Your task to perform on an android device: delete location history Image 0: 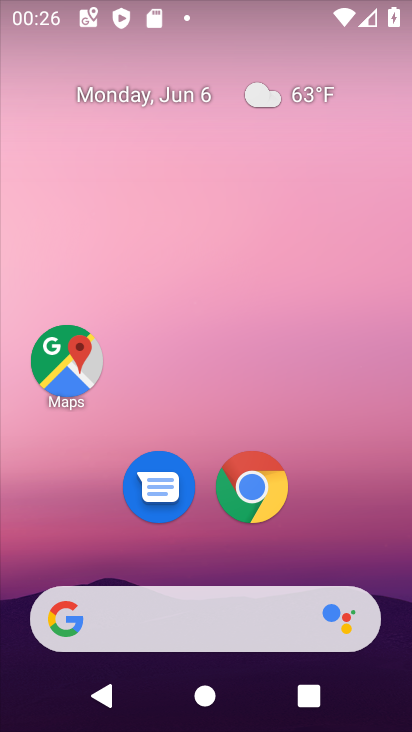
Step 0: click (69, 359)
Your task to perform on an android device: delete location history Image 1: 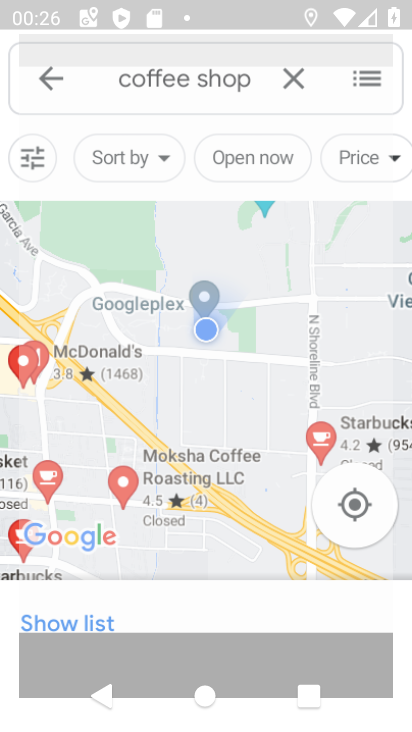
Step 1: click (282, 80)
Your task to perform on an android device: delete location history Image 2: 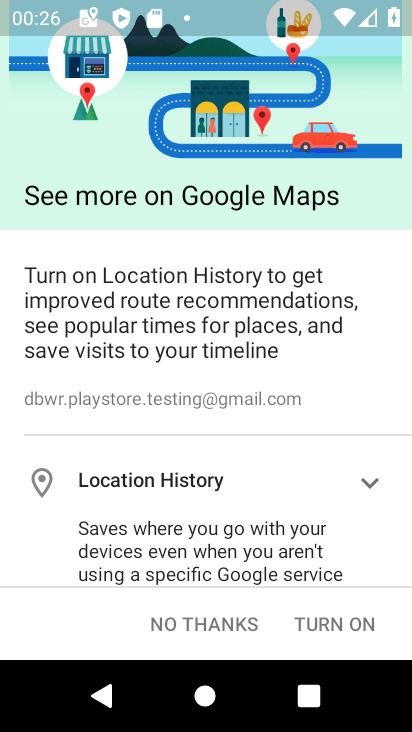
Step 2: click (227, 623)
Your task to perform on an android device: delete location history Image 3: 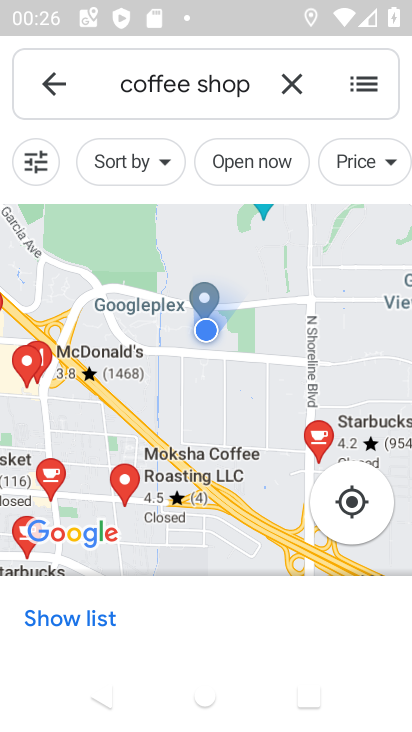
Step 3: click (288, 88)
Your task to perform on an android device: delete location history Image 4: 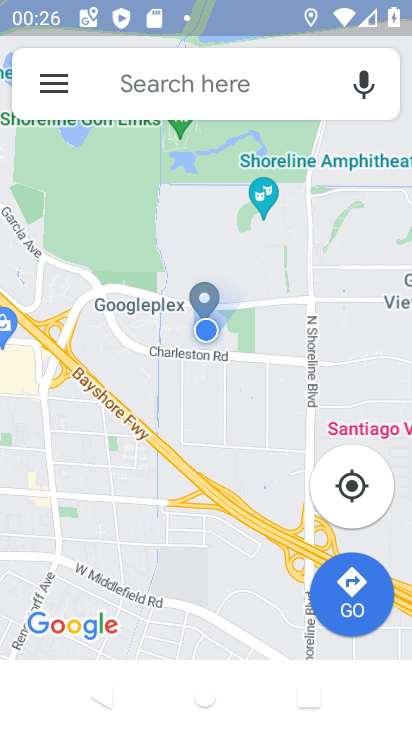
Step 4: click (51, 82)
Your task to perform on an android device: delete location history Image 5: 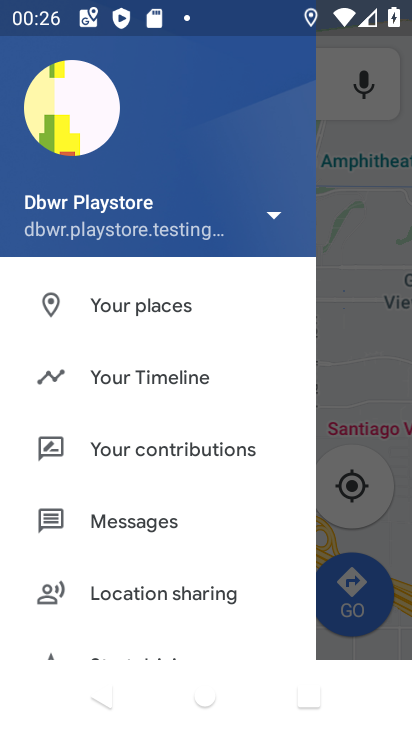
Step 5: drag from (228, 603) to (249, 227)
Your task to perform on an android device: delete location history Image 6: 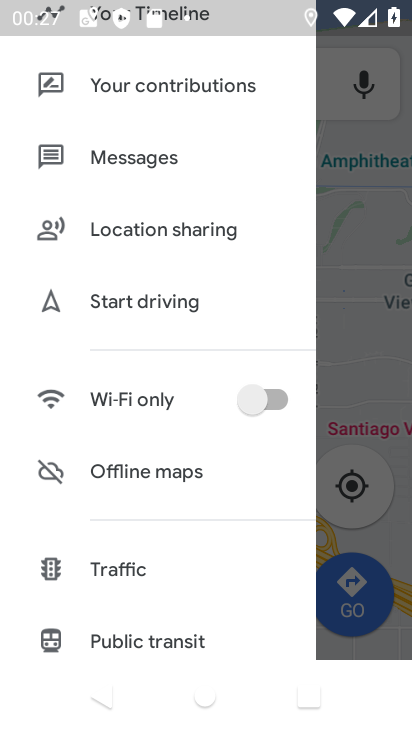
Step 6: drag from (234, 612) to (165, 128)
Your task to perform on an android device: delete location history Image 7: 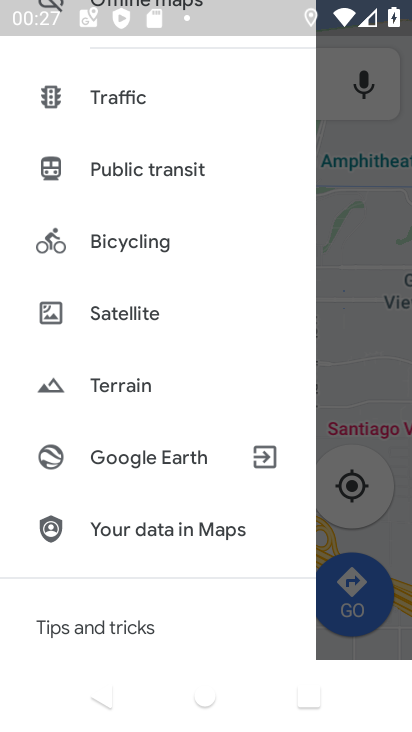
Step 7: drag from (234, 596) to (177, 75)
Your task to perform on an android device: delete location history Image 8: 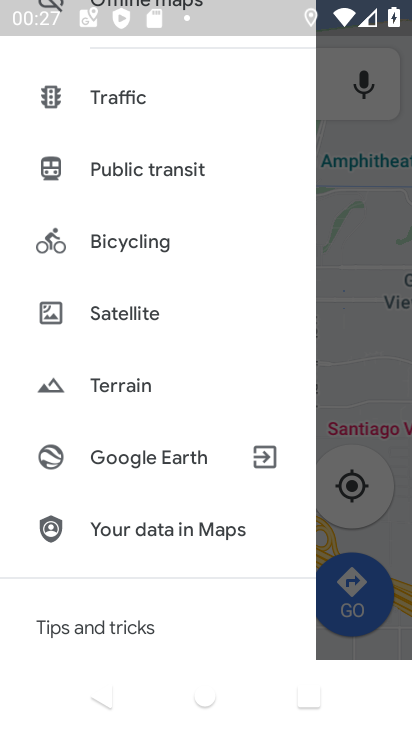
Step 8: drag from (204, 610) to (198, 93)
Your task to perform on an android device: delete location history Image 9: 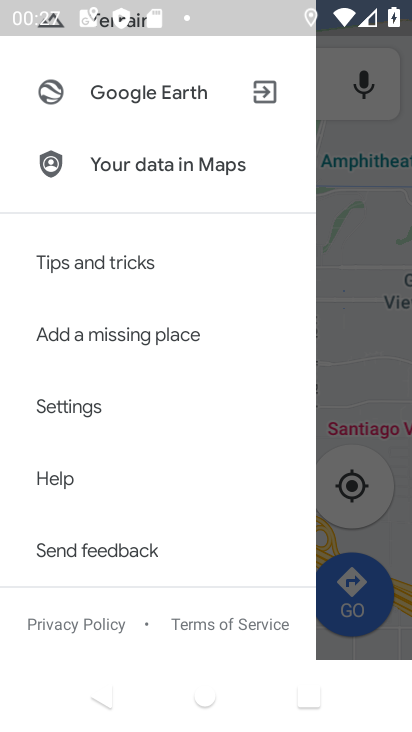
Step 9: click (84, 416)
Your task to perform on an android device: delete location history Image 10: 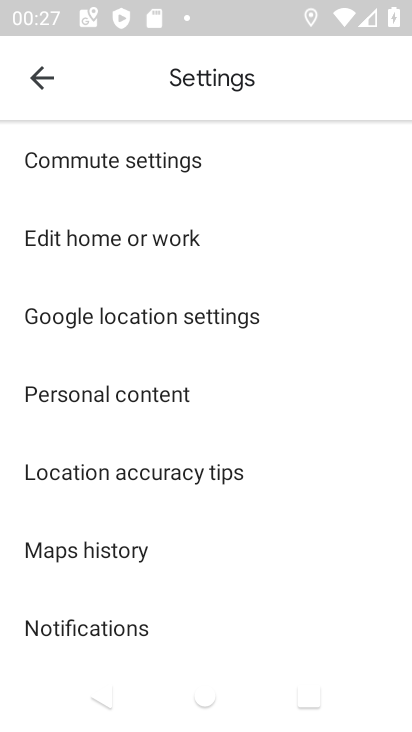
Step 10: click (95, 397)
Your task to perform on an android device: delete location history Image 11: 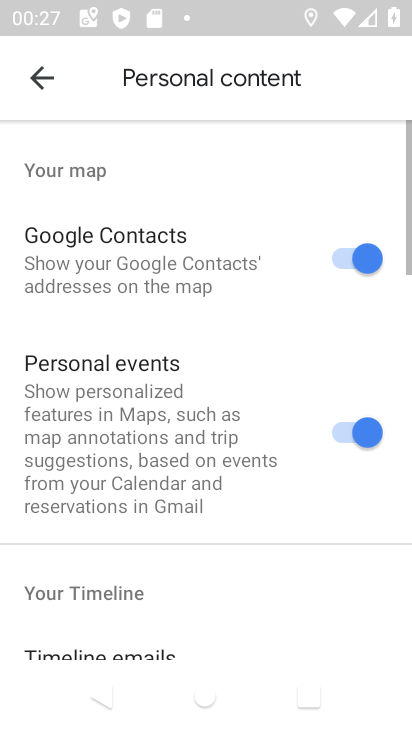
Step 11: drag from (278, 625) to (272, 177)
Your task to perform on an android device: delete location history Image 12: 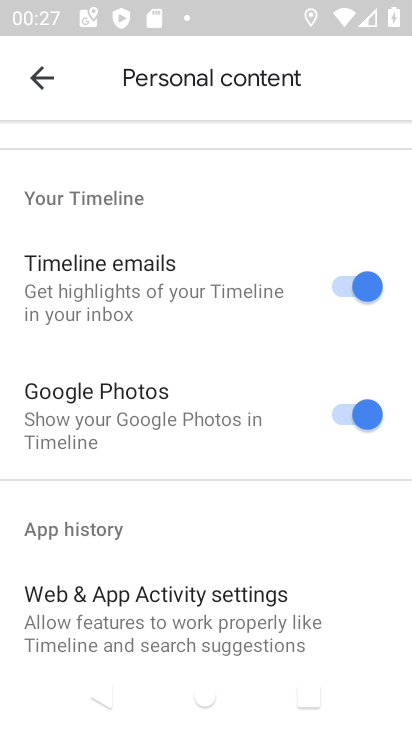
Step 12: drag from (306, 603) to (246, 130)
Your task to perform on an android device: delete location history Image 13: 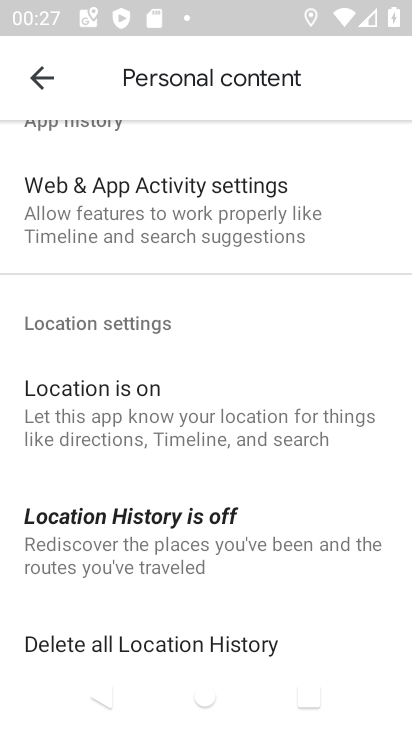
Step 13: drag from (282, 632) to (249, 173)
Your task to perform on an android device: delete location history Image 14: 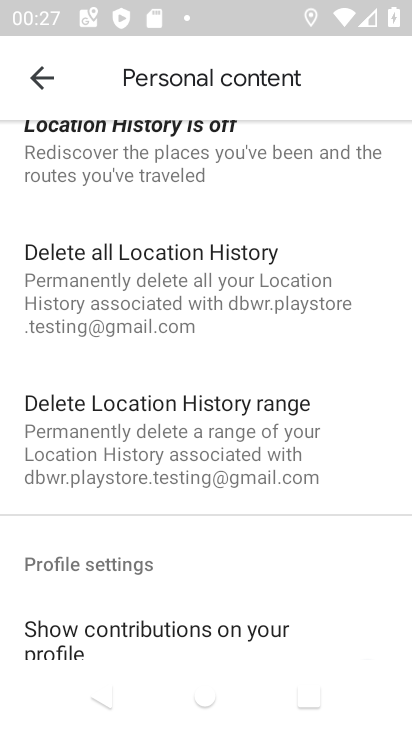
Step 14: click (123, 264)
Your task to perform on an android device: delete location history Image 15: 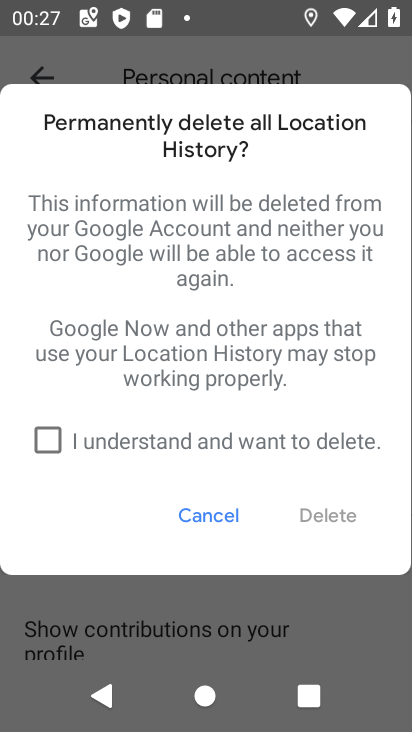
Step 15: click (57, 435)
Your task to perform on an android device: delete location history Image 16: 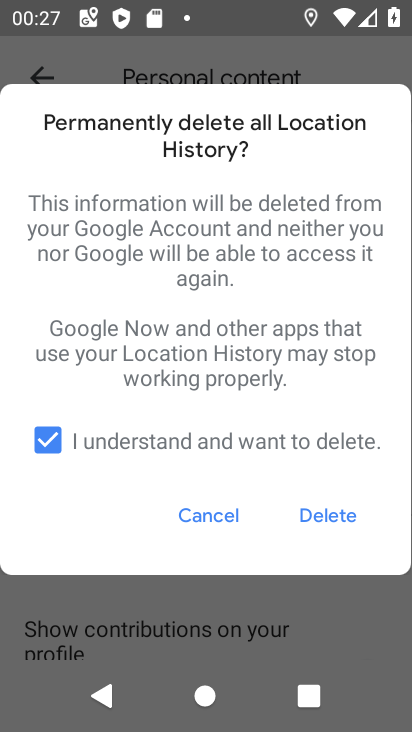
Step 16: click (326, 514)
Your task to perform on an android device: delete location history Image 17: 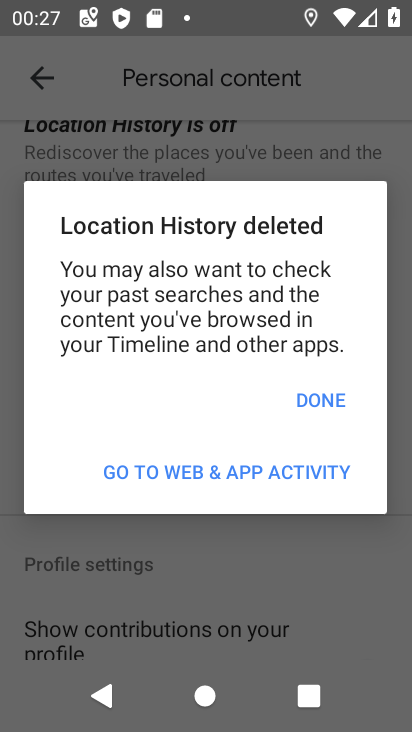
Step 17: click (322, 395)
Your task to perform on an android device: delete location history Image 18: 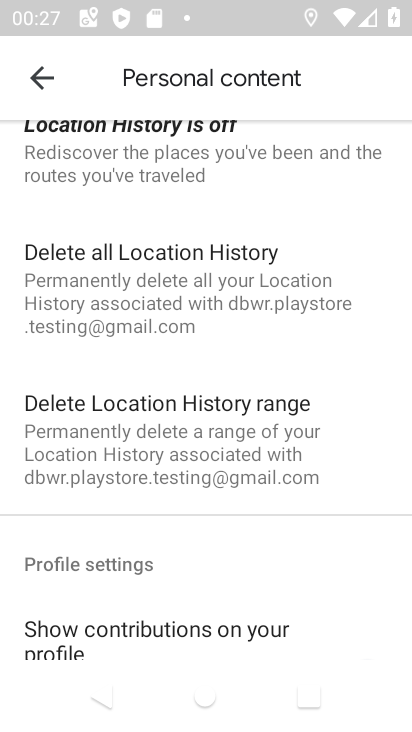
Step 18: task complete